Your task to perform on an android device: open app "Fetch Rewards" (install if not already installed) Image 0: 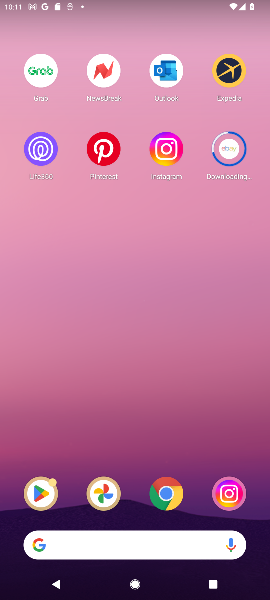
Step 0: click (53, 478)
Your task to perform on an android device: open app "Fetch Rewards" (install if not already installed) Image 1: 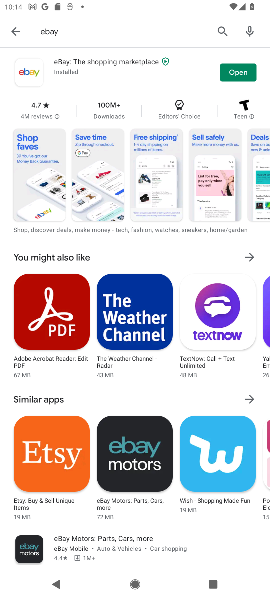
Step 1: task complete